Your task to perform on an android device: turn on notifications settings in the gmail app Image 0: 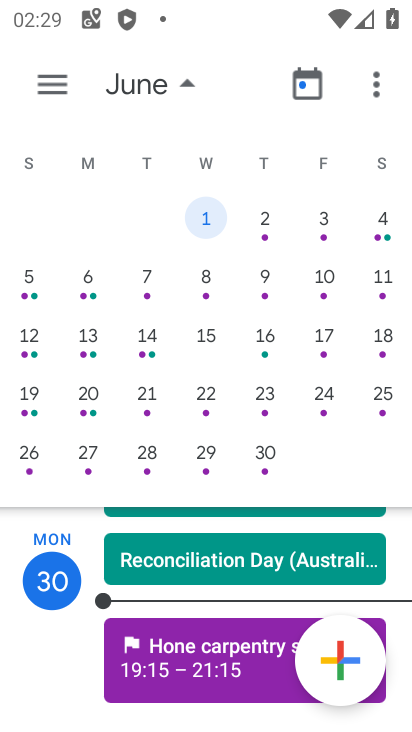
Step 0: press home button
Your task to perform on an android device: turn on notifications settings in the gmail app Image 1: 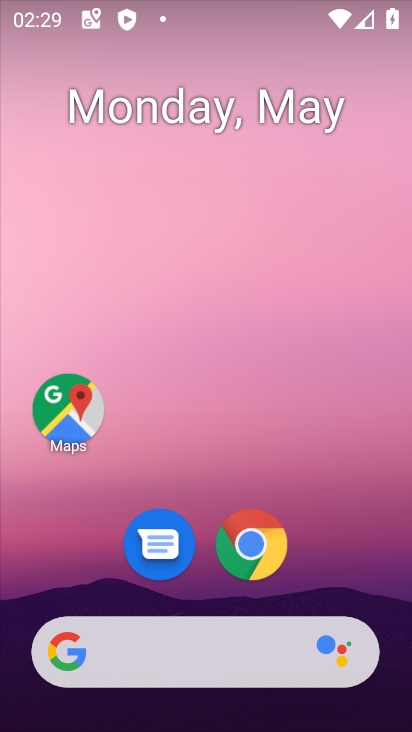
Step 1: drag from (369, 612) to (351, 241)
Your task to perform on an android device: turn on notifications settings in the gmail app Image 2: 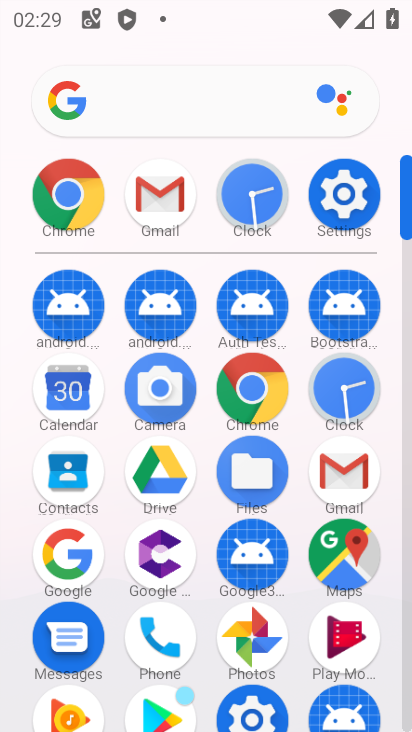
Step 2: click (366, 466)
Your task to perform on an android device: turn on notifications settings in the gmail app Image 3: 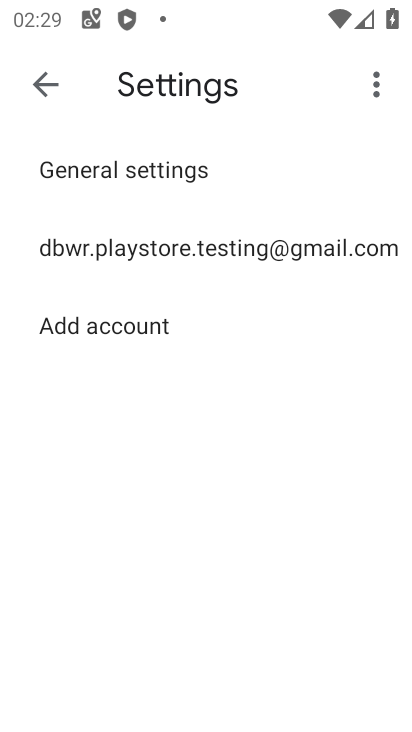
Step 3: click (245, 262)
Your task to perform on an android device: turn on notifications settings in the gmail app Image 4: 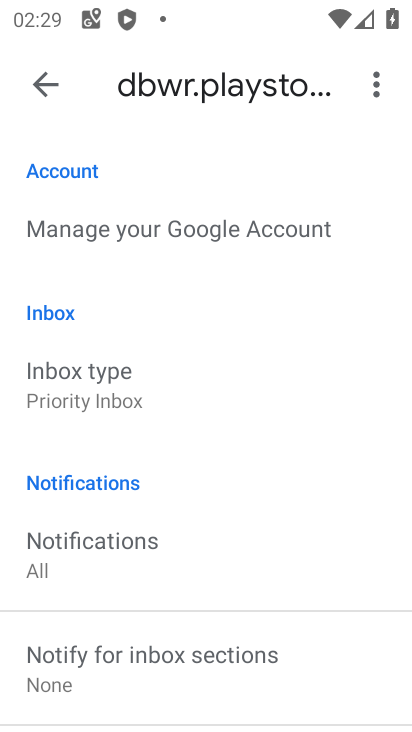
Step 4: drag from (331, 513) to (330, 411)
Your task to perform on an android device: turn on notifications settings in the gmail app Image 5: 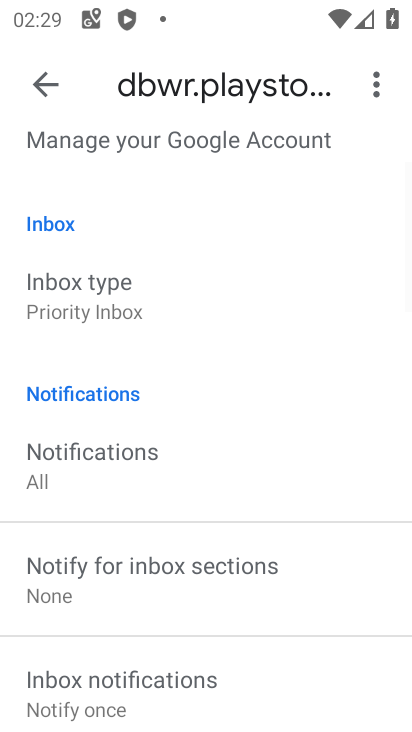
Step 5: drag from (336, 525) to (337, 417)
Your task to perform on an android device: turn on notifications settings in the gmail app Image 6: 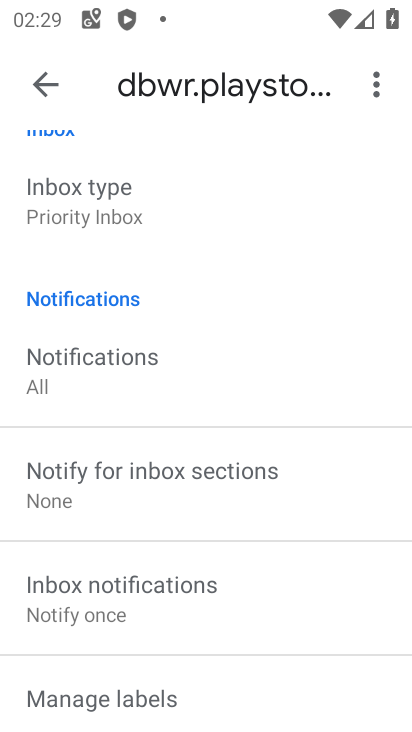
Step 6: drag from (349, 553) to (345, 431)
Your task to perform on an android device: turn on notifications settings in the gmail app Image 7: 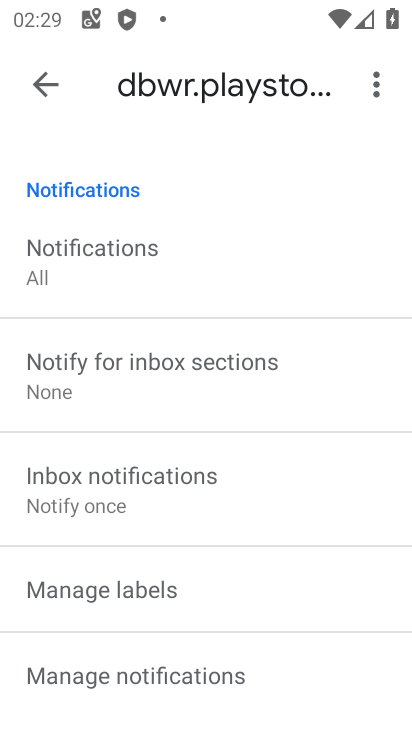
Step 7: drag from (344, 539) to (351, 269)
Your task to perform on an android device: turn on notifications settings in the gmail app Image 8: 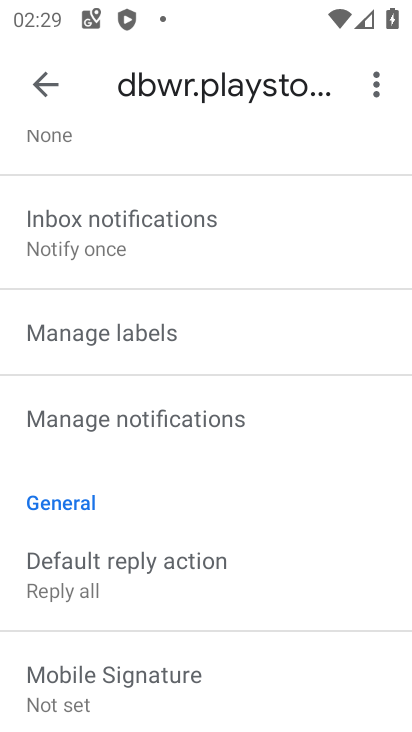
Step 8: drag from (326, 485) to (310, 333)
Your task to perform on an android device: turn on notifications settings in the gmail app Image 9: 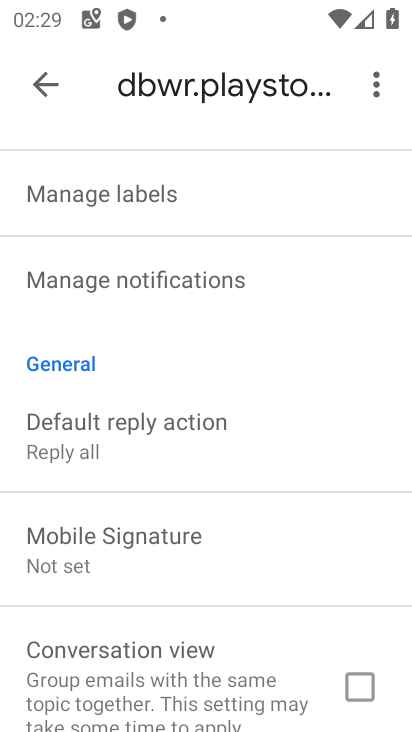
Step 9: click (236, 297)
Your task to perform on an android device: turn on notifications settings in the gmail app Image 10: 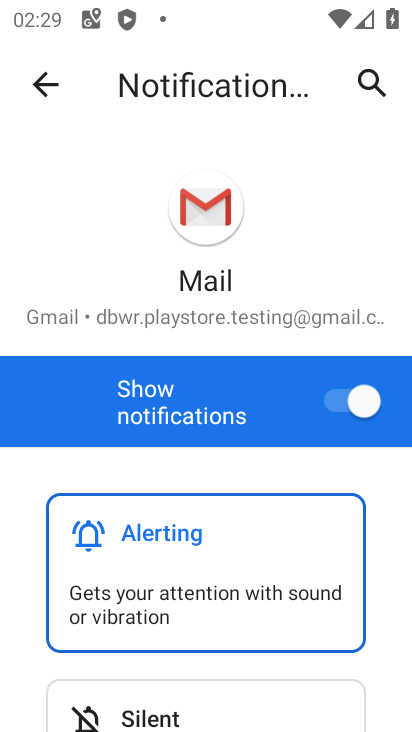
Step 10: task complete